Your task to perform on an android device: Clear the shopping cart on costco.com. Add "logitech g pro" to the cart on costco.com, then select checkout. Image 0: 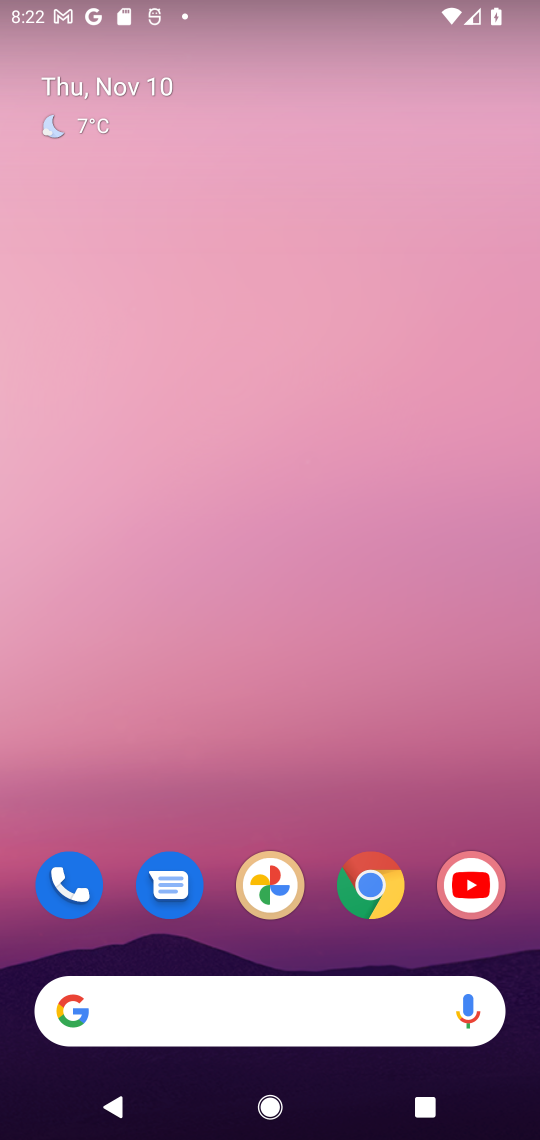
Step 0: click (382, 883)
Your task to perform on an android device: Clear the shopping cart on costco.com. Add "logitech g pro" to the cart on costco.com, then select checkout. Image 1: 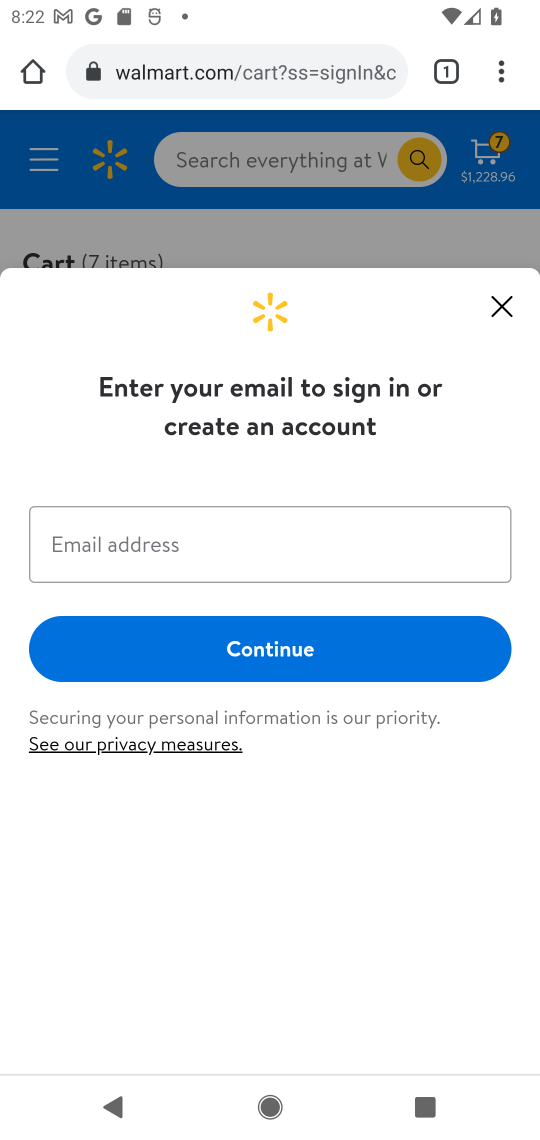
Step 1: click (502, 304)
Your task to perform on an android device: Clear the shopping cart on costco.com. Add "logitech g pro" to the cart on costco.com, then select checkout. Image 2: 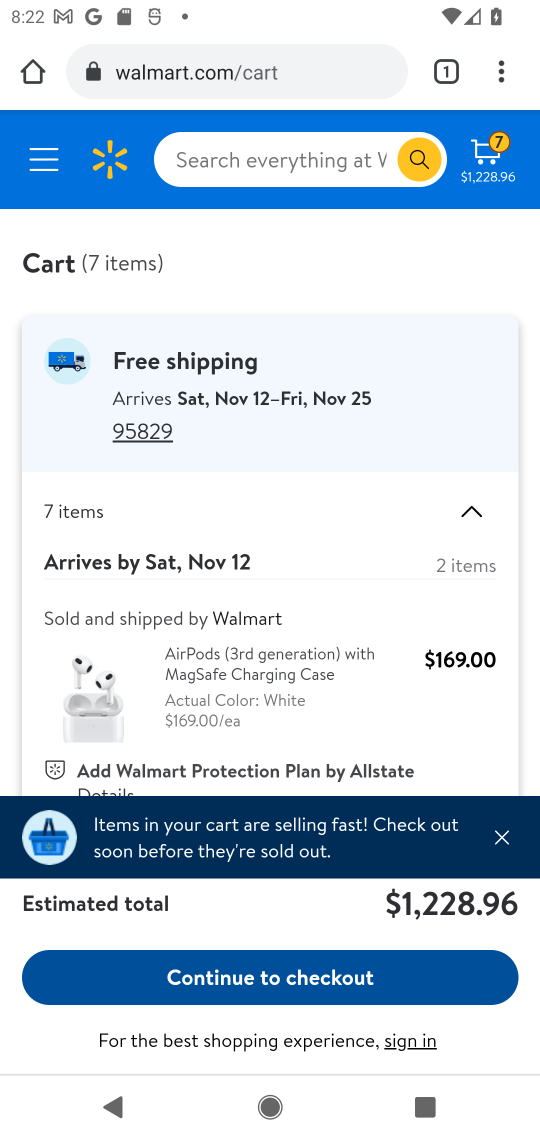
Step 2: click (247, 66)
Your task to perform on an android device: Clear the shopping cart on costco.com. Add "logitech g pro" to the cart on costco.com, then select checkout. Image 3: 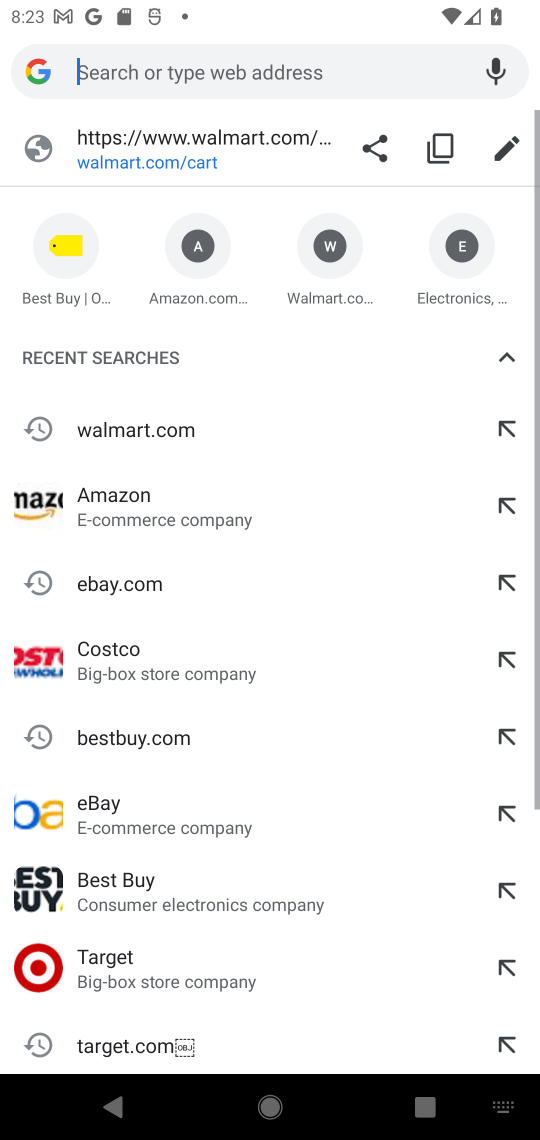
Step 3: click (107, 651)
Your task to perform on an android device: Clear the shopping cart on costco.com. Add "logitech g pro" to the cart on costco.com, then select checkout. Image 4: 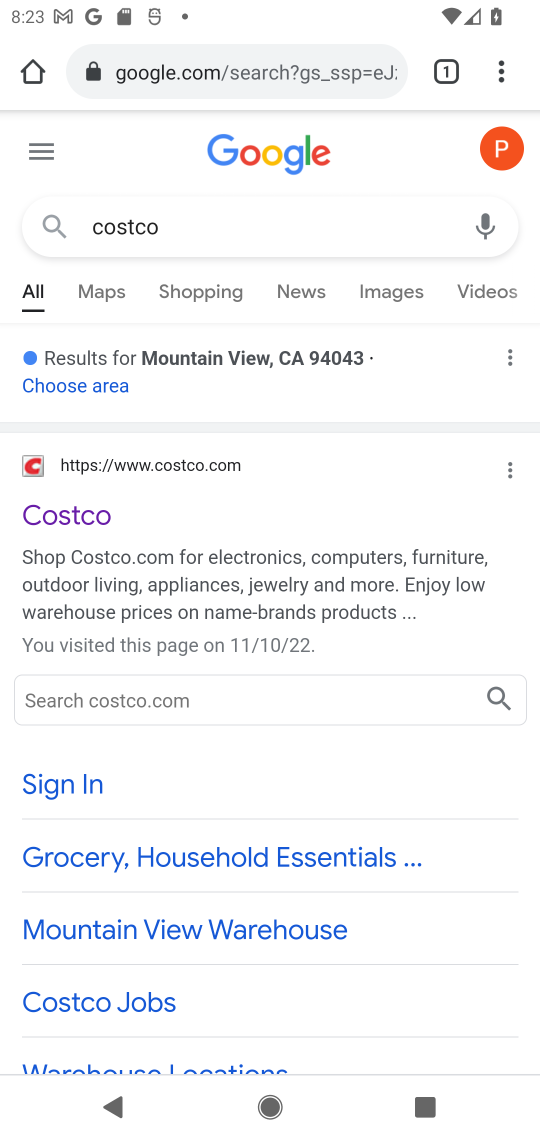
Step 4: click (194, 471)
Your task to perform on an android device: Clear the shopping cart on costco.com. Add "logitech g pro" to the cart on costco.com, then select checkout. Image 5: 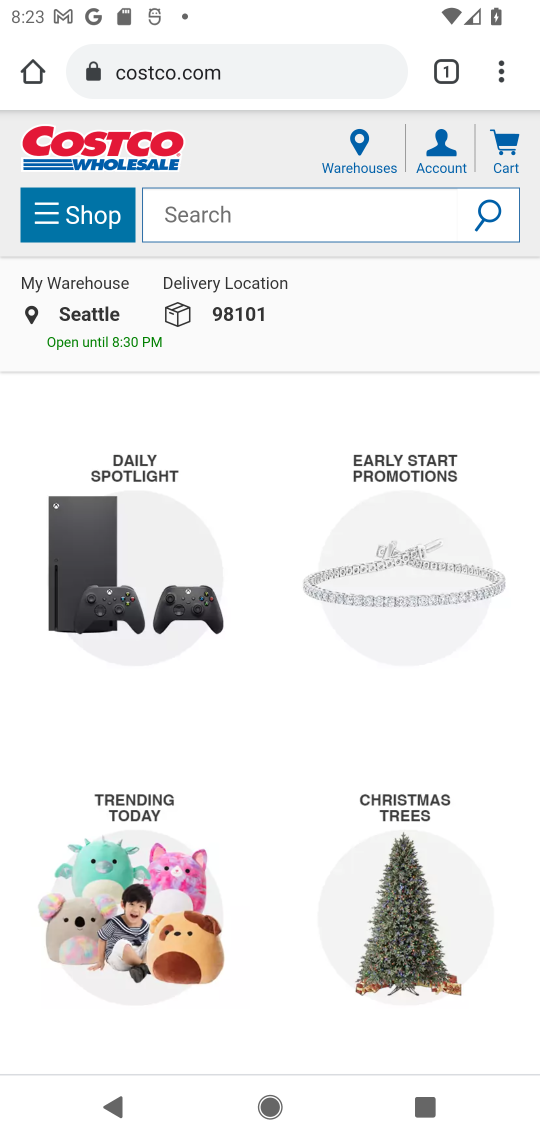
Step 5: click (511, 148)
Your task to perform on an android device: Clear the shopping cart on costco.com. Add "logitech g pro" to the cart on costco.com, then select checkout. Image 6: 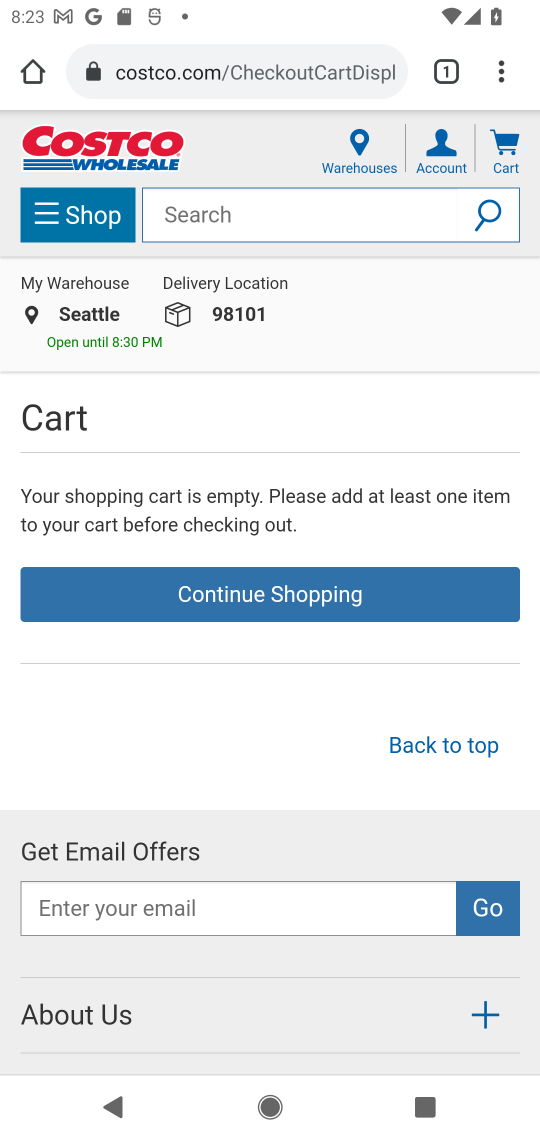
Step 6: click (341, 218)
Your task to perform on an android device: Clear the shopping cart on costco.com. Add "logitech g pro" to the cart on costco.com, then select checkout. Image 7: 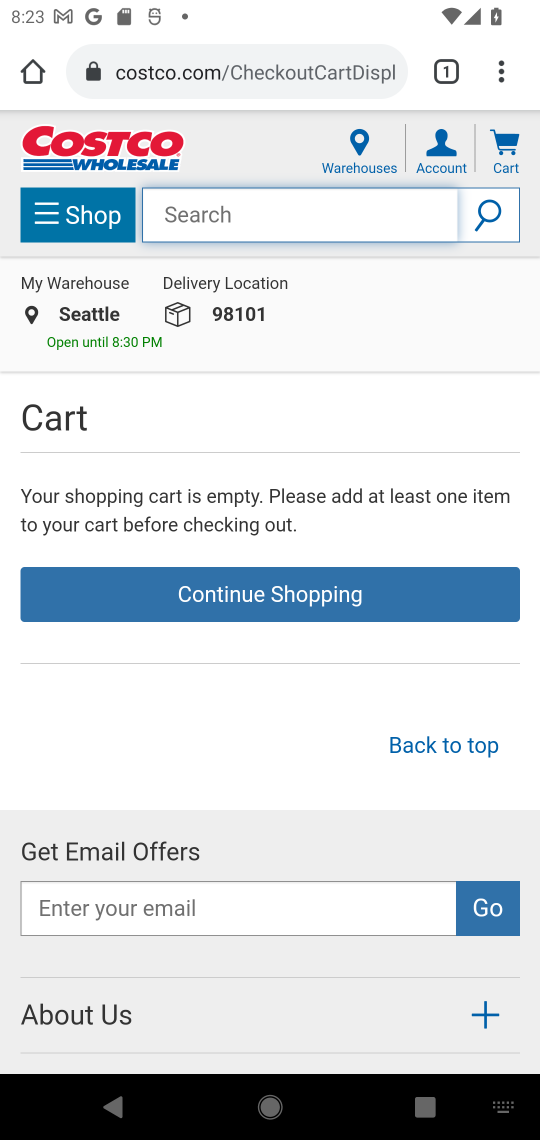
Step 7: type "logitech g pro"
Your task to perform on an android device: Clear the shopping cart on costco.com. Add "logitech g pro" to the cart on costco.com, then select checkout. Image 8: 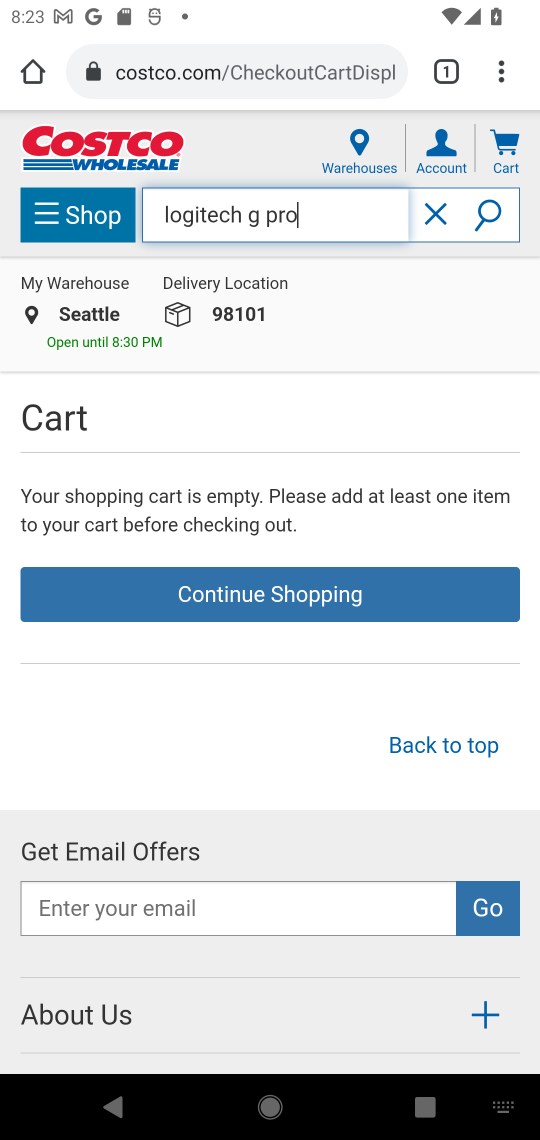
Step 8: press enter
Your task to perform on an android device: Clear the shopping cart on costco.com. Add "logitech g pro" to the cart on costco.com, then select checkout. Image 9: 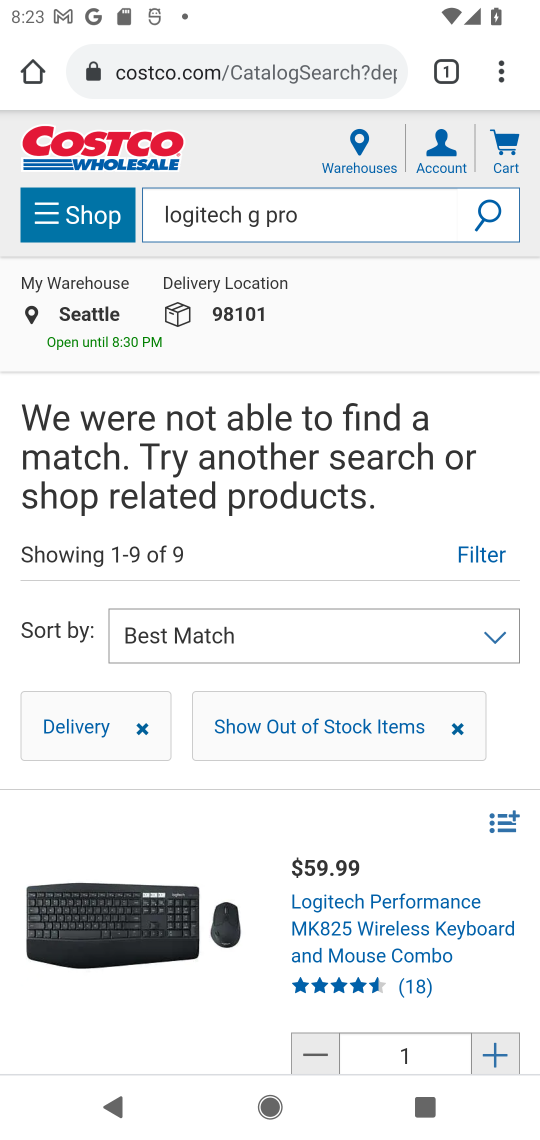
Step 9: task complete